Your task to perform on an android device: turn off location history Image 0: 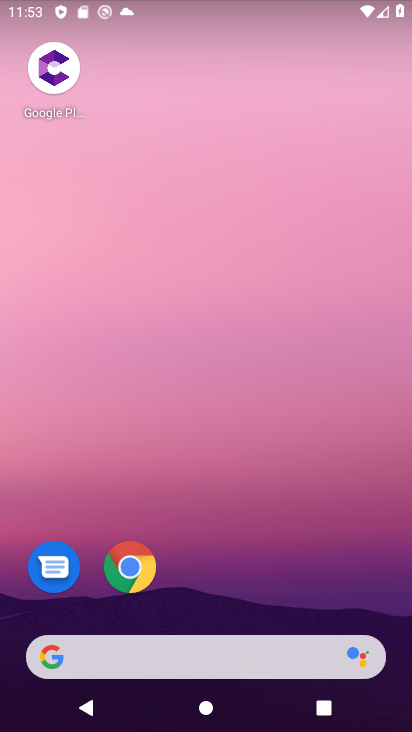
Step 0: drag from (204, 641) to (201, 342)
Your task to perform on an android device: turn off location history Image 1: 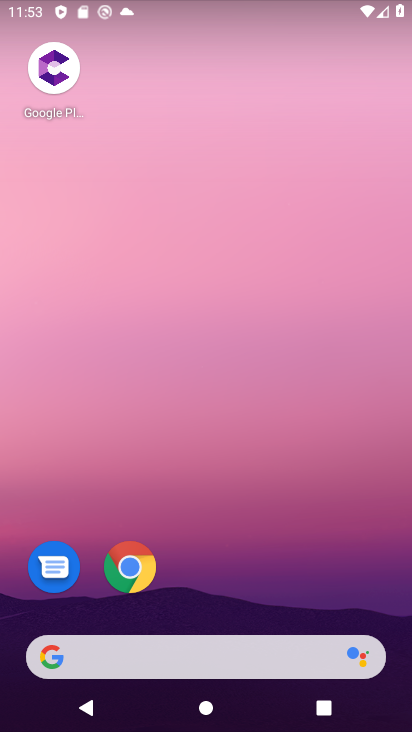
Step 1: drag from (198, 644) to (180, 189)
Your task to perform on an android device: turn off location history Image 2: 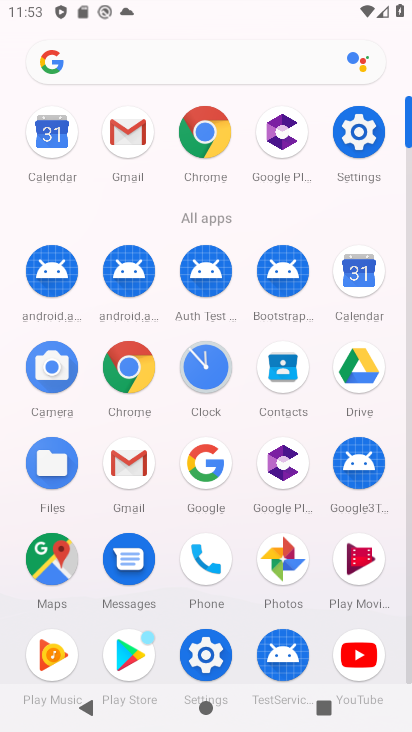
Step 2: click (336, 127)
Your task to perform on an android device: turn off location history Image 3: 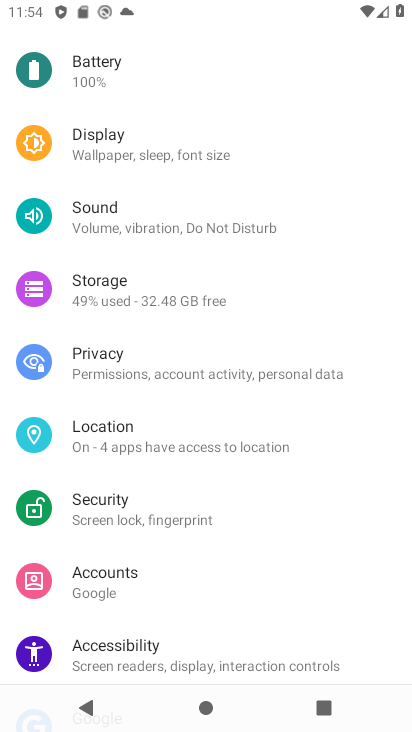
Step 3: click (103, 469)
Your task to perform on an android device: turn off location history Image 4: 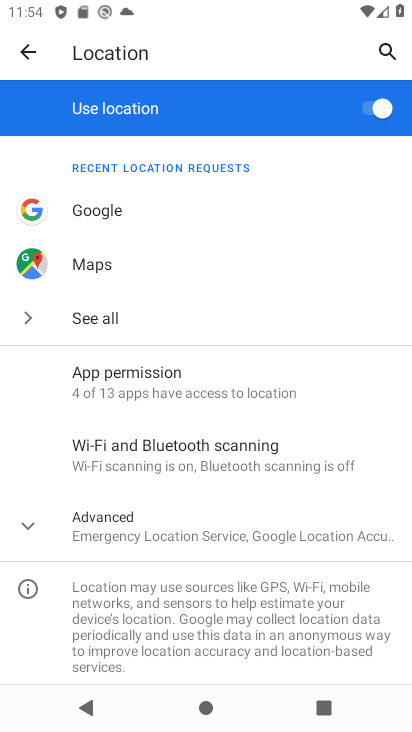
Step 4: click (159, 507)
Your task to perform on an android device: turn off location history Image 5: 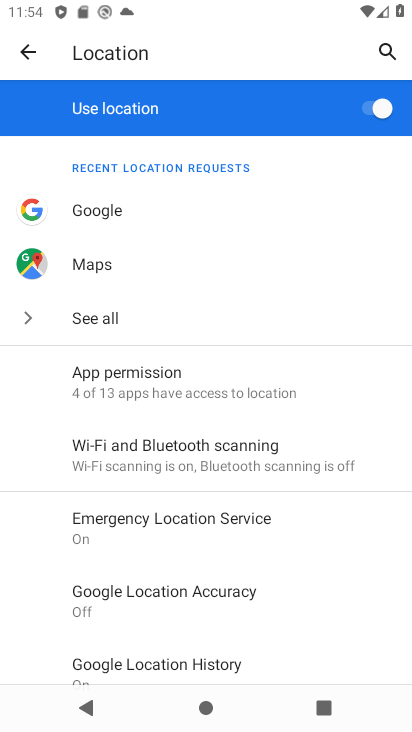
Step 5: click (155, 656)
Your task to perform on an android device: turn off location history Image 6: 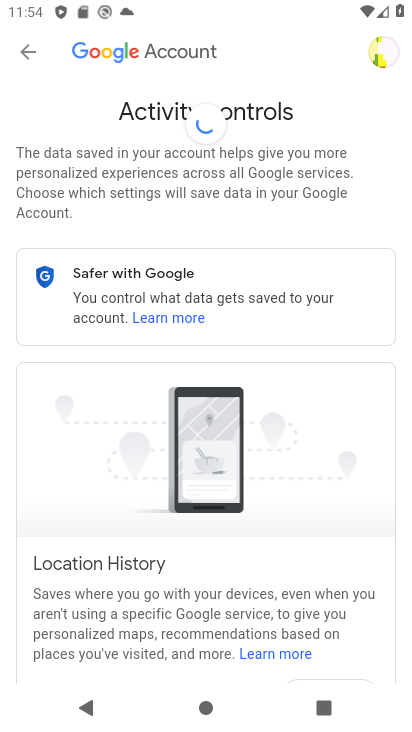
Step 6: task complete